Your task to perform on an android device: choose inbox layout in the gmail app Image 0: 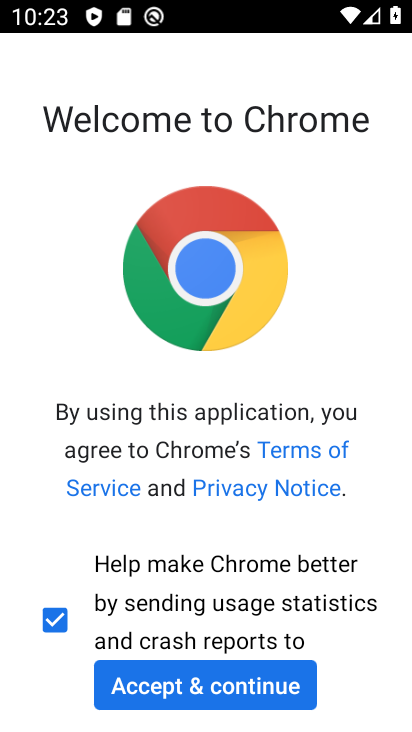
Step 0: press home button
Your task to perform on an android device: choose inbox layout in the gmail app Image 1: 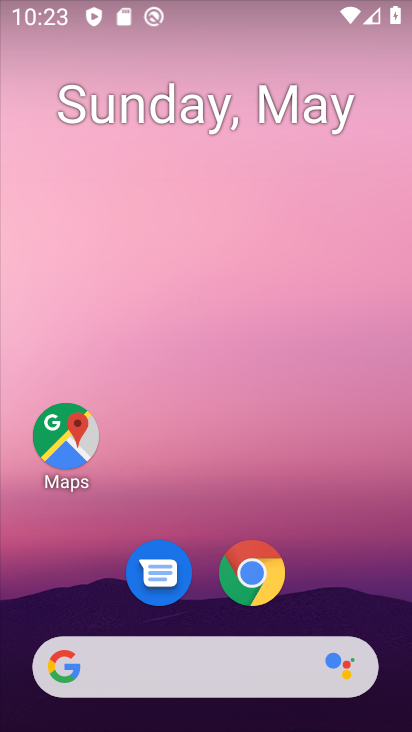
Step 1: drag from (195, 505) to (244, 78)
Your task to perform on an android device: choose inbox layout in the gmail app Image 2: 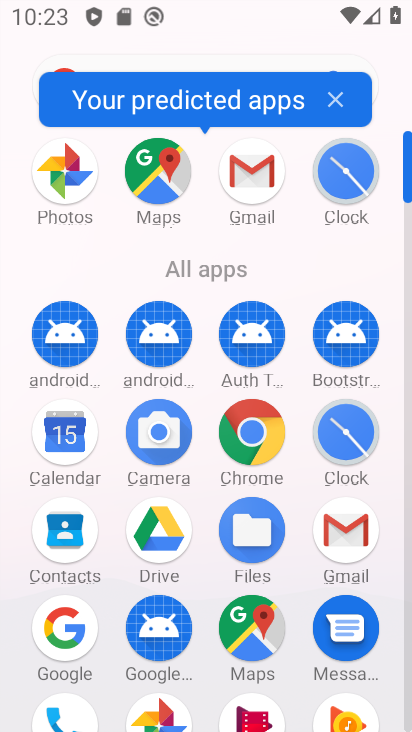
Step 2: click (238, 158)
Your task to perform on an android device: choose inbox layout in the gmail app Image 3: 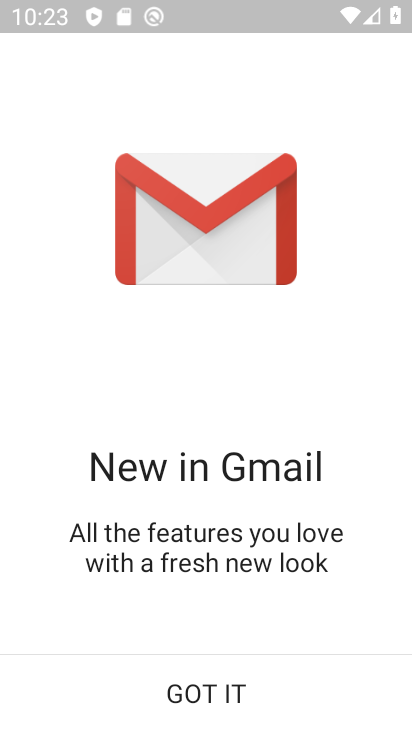
Step 3: click (226, 688)
Your task to perform on an android device: choose inbox layout in the gmail app Image 4: 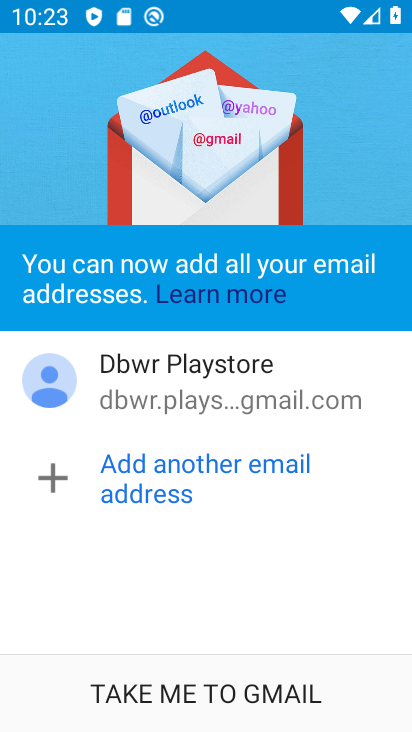
Step 4: click (226, 688)
Your task to perform on an android device: choose inbox layout in the gmail app Image 5: 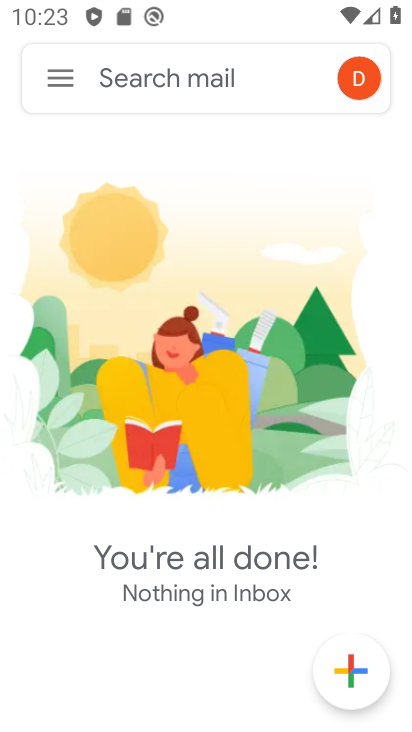
Step 5: click (57, 70)
Your task to perform on an android device: choose inbox layout in the gmail app Image 6: 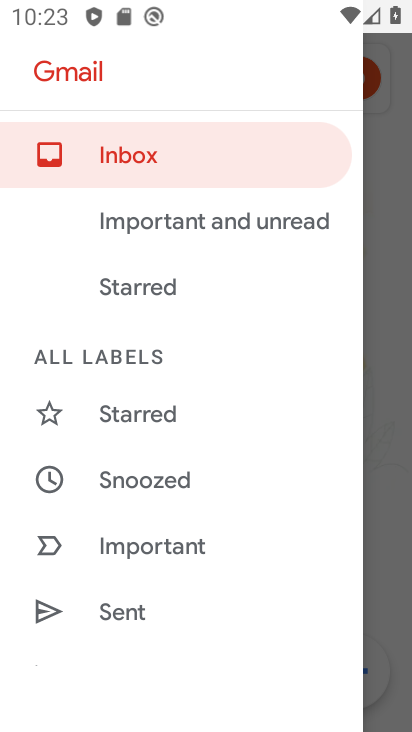
Step 6: drag from (194, 483) to (242, 104)
Your task to perform on an android device: choose inbox layout in the gmail app Image 7: 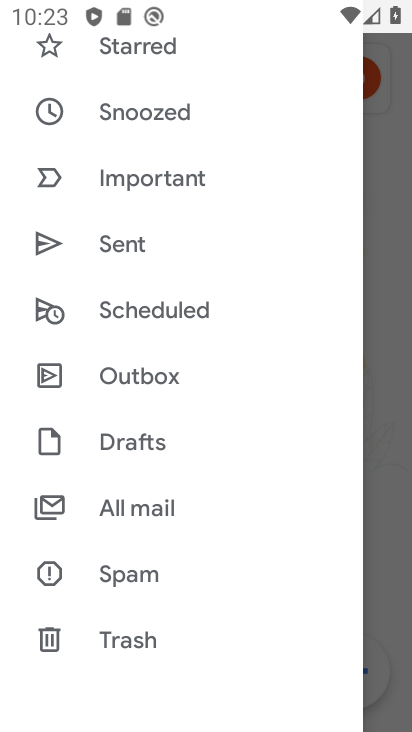
Step 7: drag from (188, 466) to (209, 62)
Your task to perform on an android device: choose inbox layout in the gmail app Image 8: 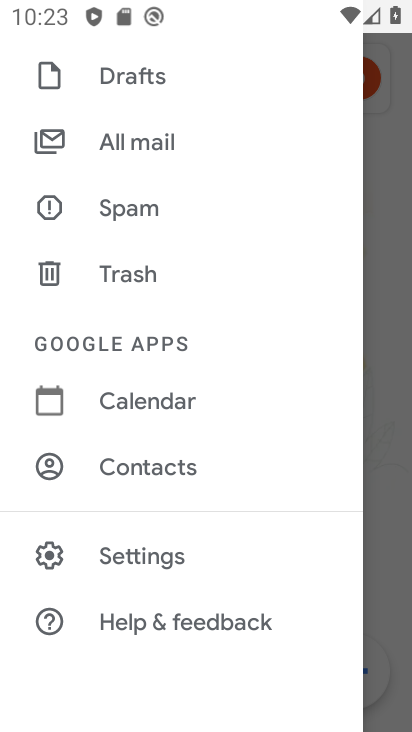
Step 8: click (176, 544)
Your task to perform on an android device: choose inbox layout in the gmail app Image 9: 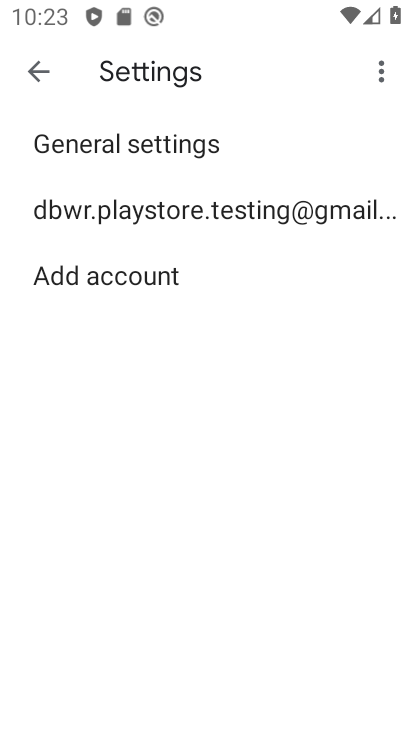
Step 9: click (280, 212)
Your task to perform on an android device: choose inbox layout in the gmail app Image 10: 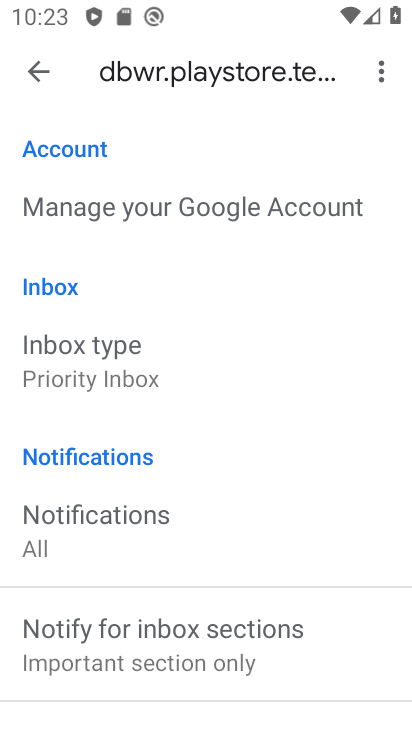
Step 10: click (126, 370)
Your task to perform on an android device: choose inbox layout in the gmail app Image 11: 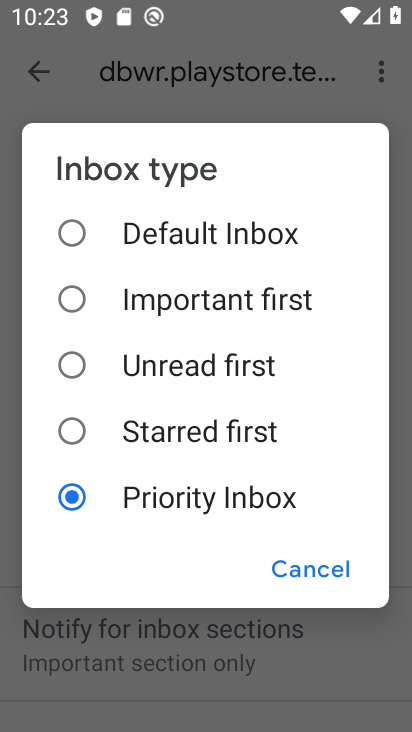
Step 11: click (141, 228)
Your task to perform on an android device: choose inbox layout in the gmail app Image 12: 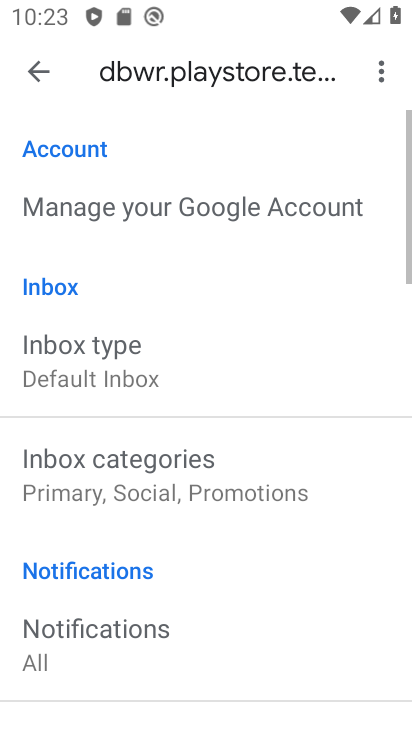
Step 12: task complete